Your task to perform on an android device: check the backup settings in the google photos Image 0: 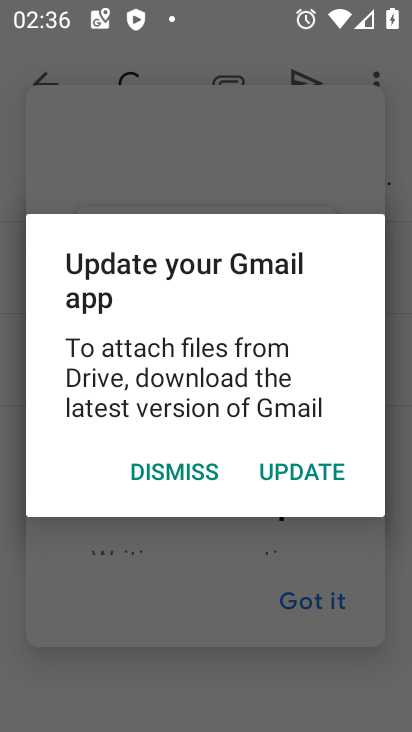
Step 0: press home button
Your task to perform on an android device: check the backup settings in the google photos Image 1: 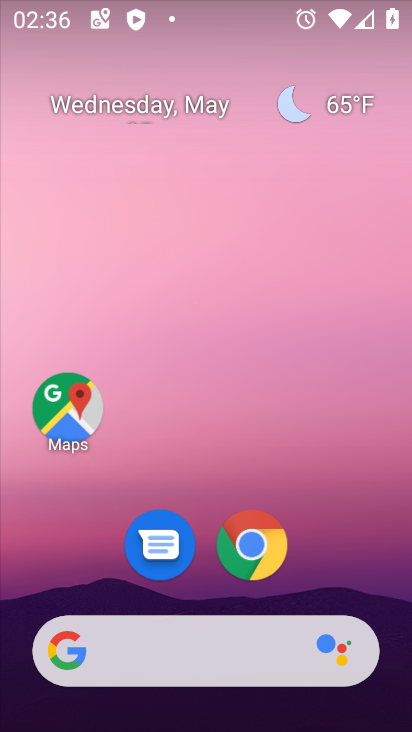
Step 1: drag from (340, 530) to (237, 44)
Your task to perform on an android device: check the backup settings in the google photos Image 2: 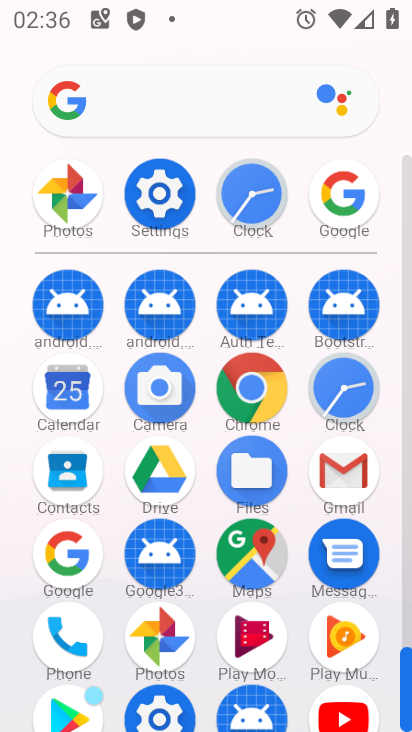
Step 2: click (165, 644)
Your task to perform on an android device: check the backup settings in the google photos Image 3: 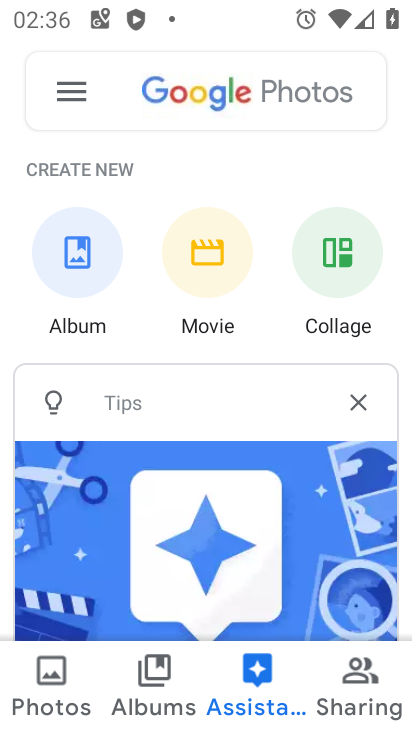
Step 3: click (71, 103)
Your task to perform on an android device: check the backup settings in the google photos Image 4: 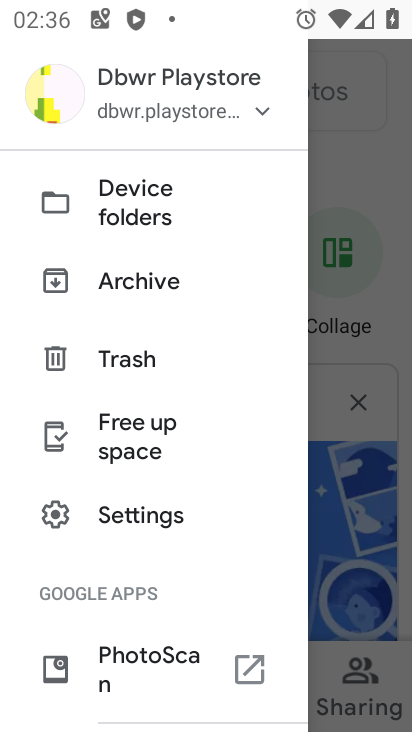
Step 4: click (172, 521)
Your task to perform on an android device: check the backup settings in the google photos Image 5: 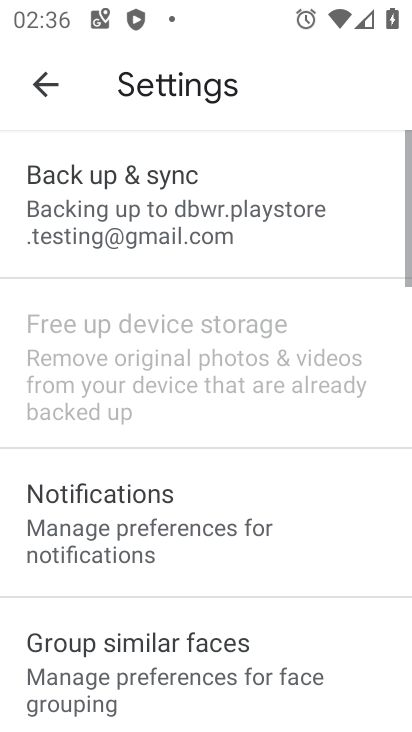
Step 5: click (138, 180)
Your task to perform on an android device: check the backup settings in the google photos Image 6: 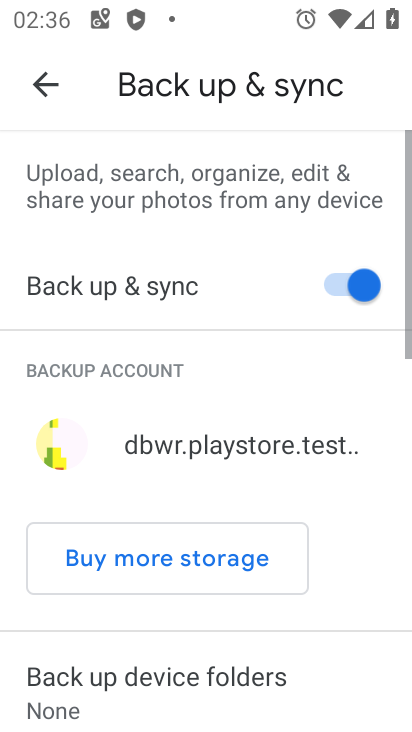
Step 6: task complete